Your task to perform on an android device: set an alarm Image 0: 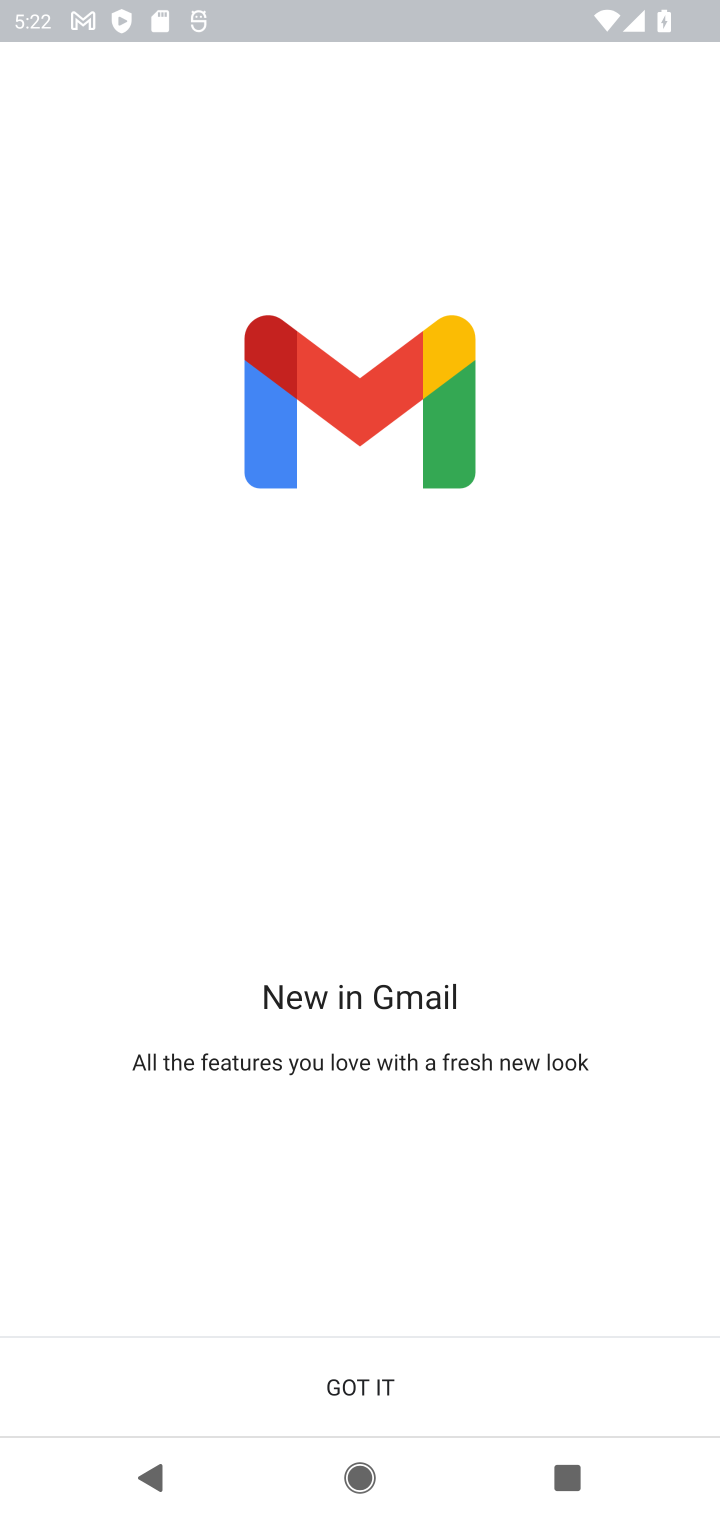
Step 0: press home button
Your task to perform on an android device: set an alarm Image 1: 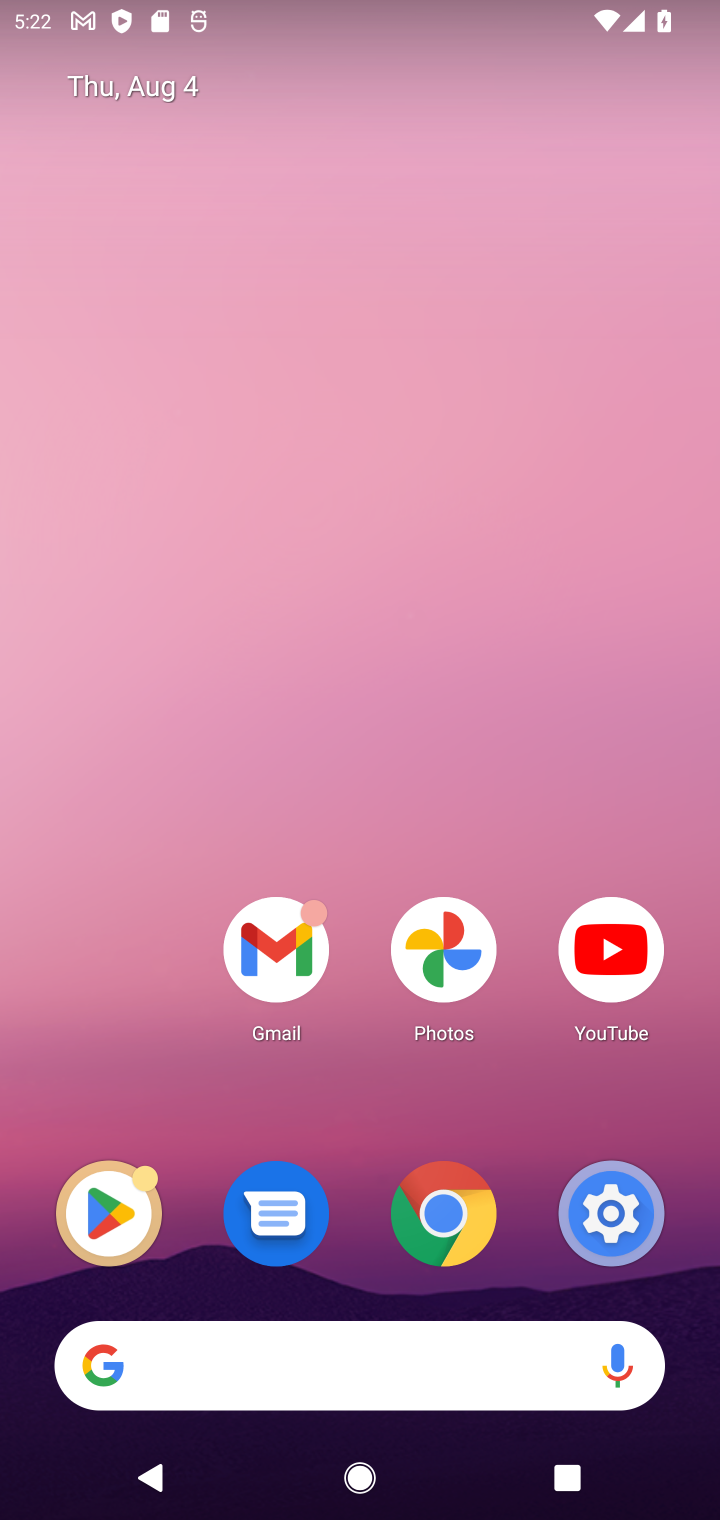
Step 1: drag from (341, 1107) to (343, 70)
Your task to perform on an android device: set an alarm Image 2: 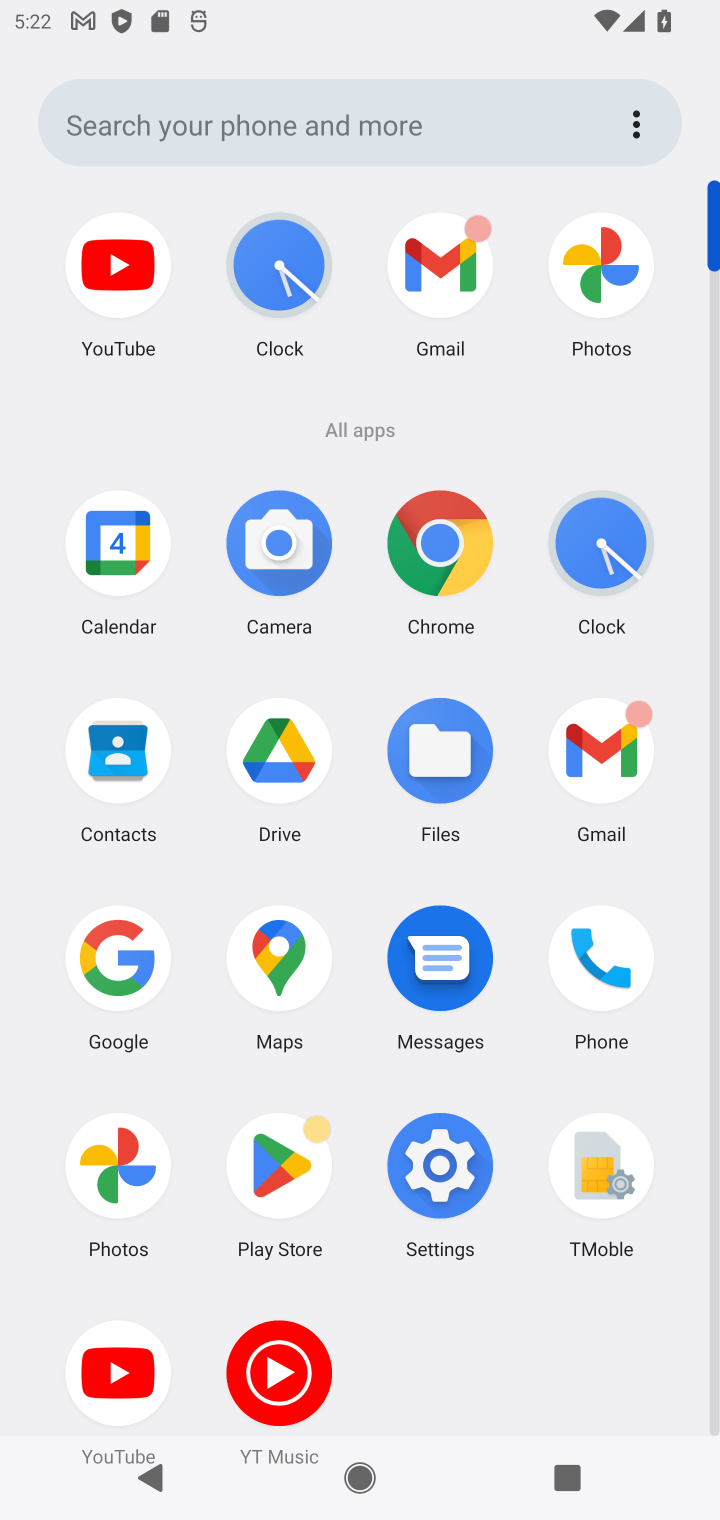
Step 2: click (258, 279)
Your task to perform on an android device: set an alarm Image 3: 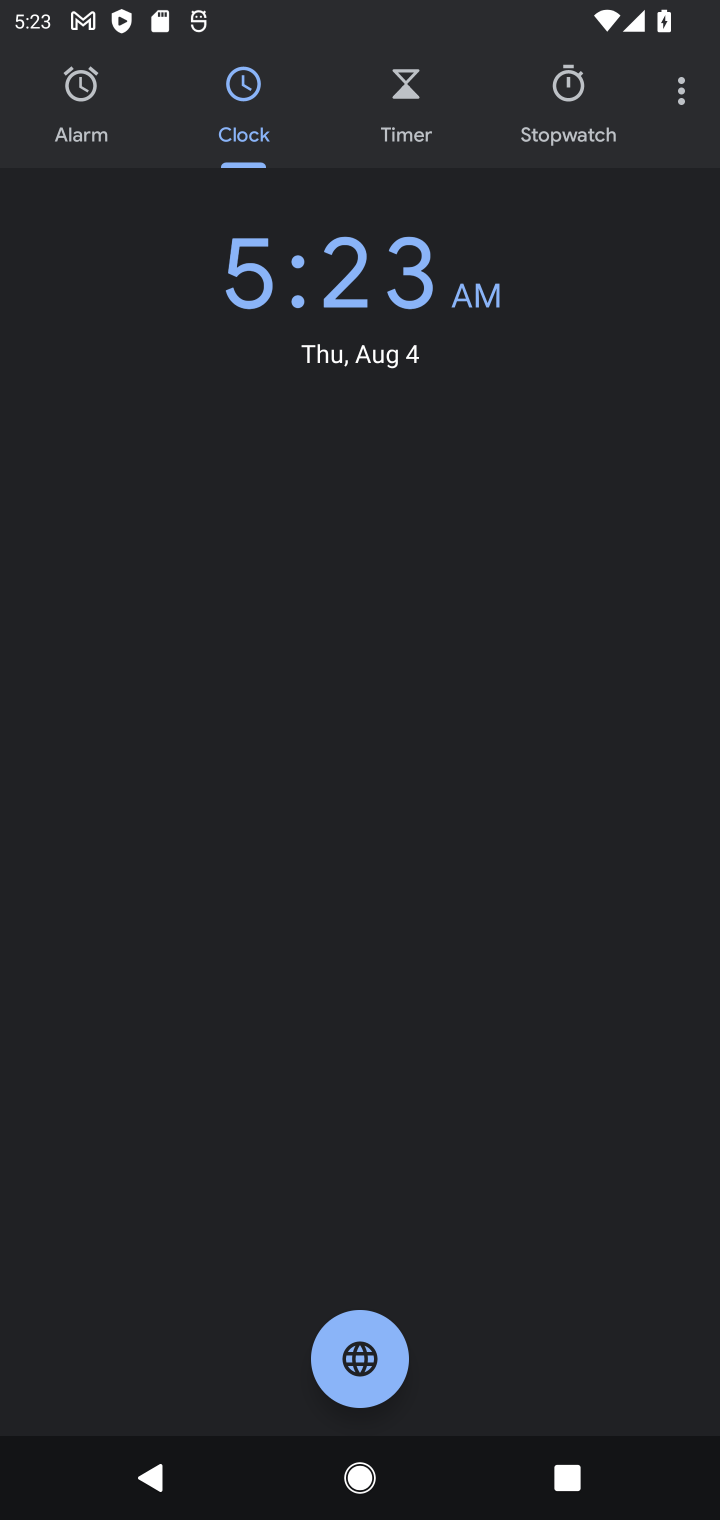
Step 3: click (81, 120)
Your task to perform on an android device: set an alarm Image 4: 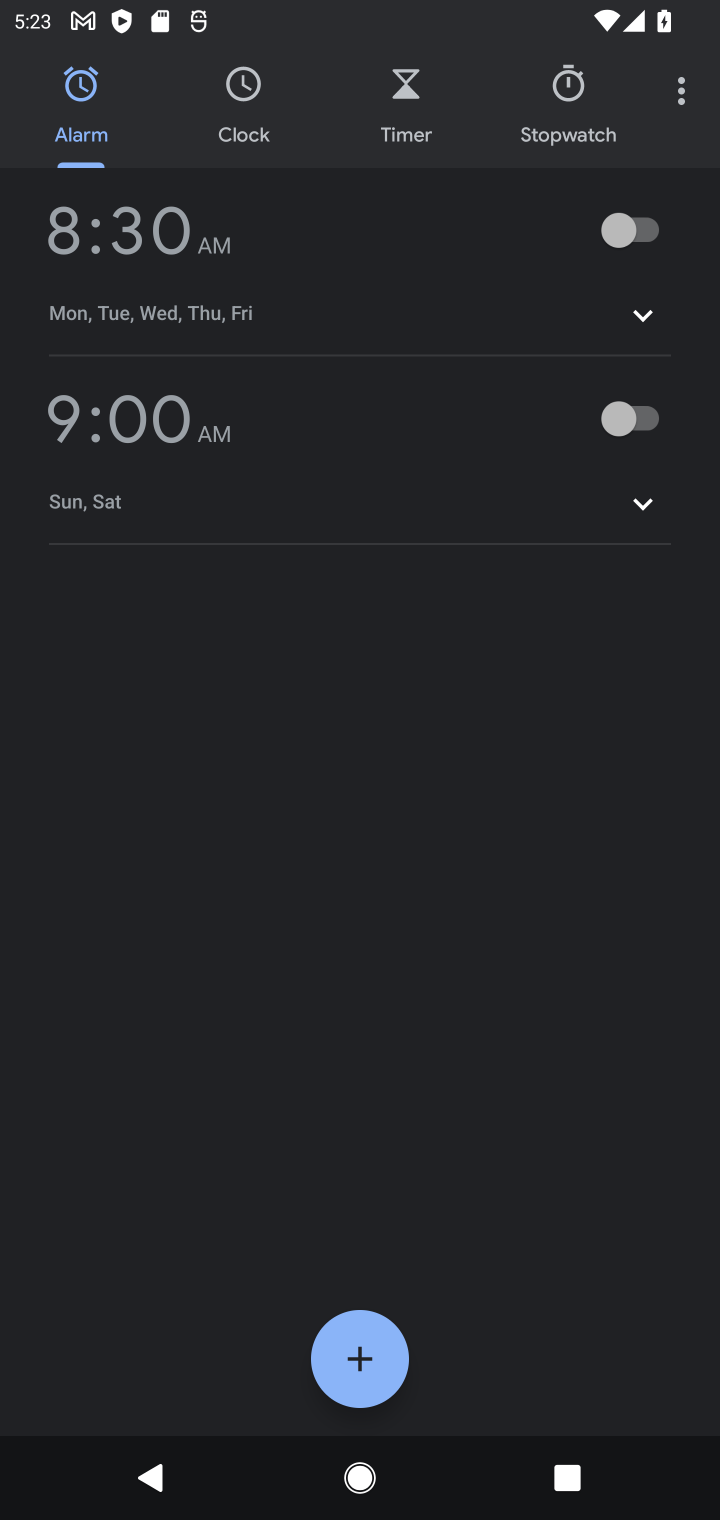
Step 4: click (350, 1352)
Your task to perform on an android device: set an alarm Image 5: 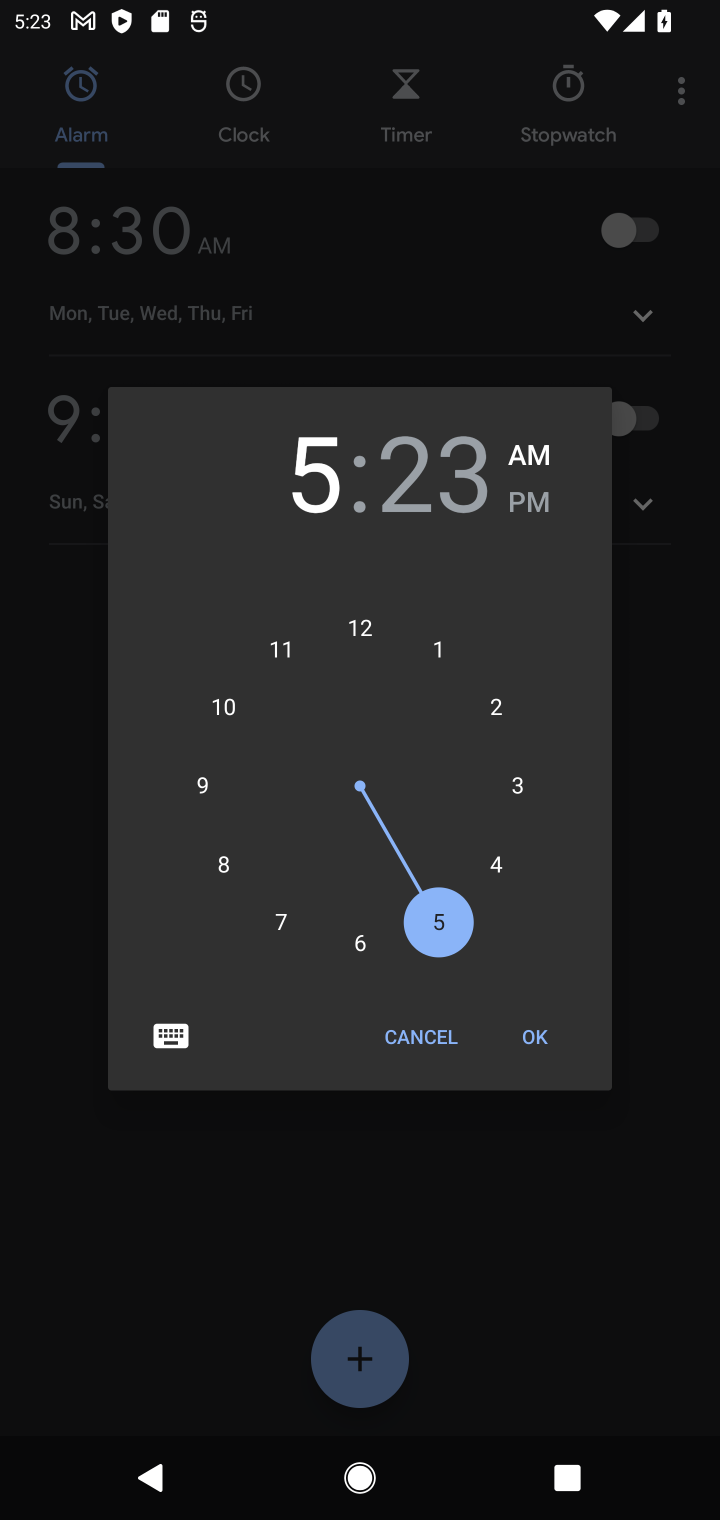
Step 5: click (366, 938)
Your task to perform on an android device: set an alarm Image 6: 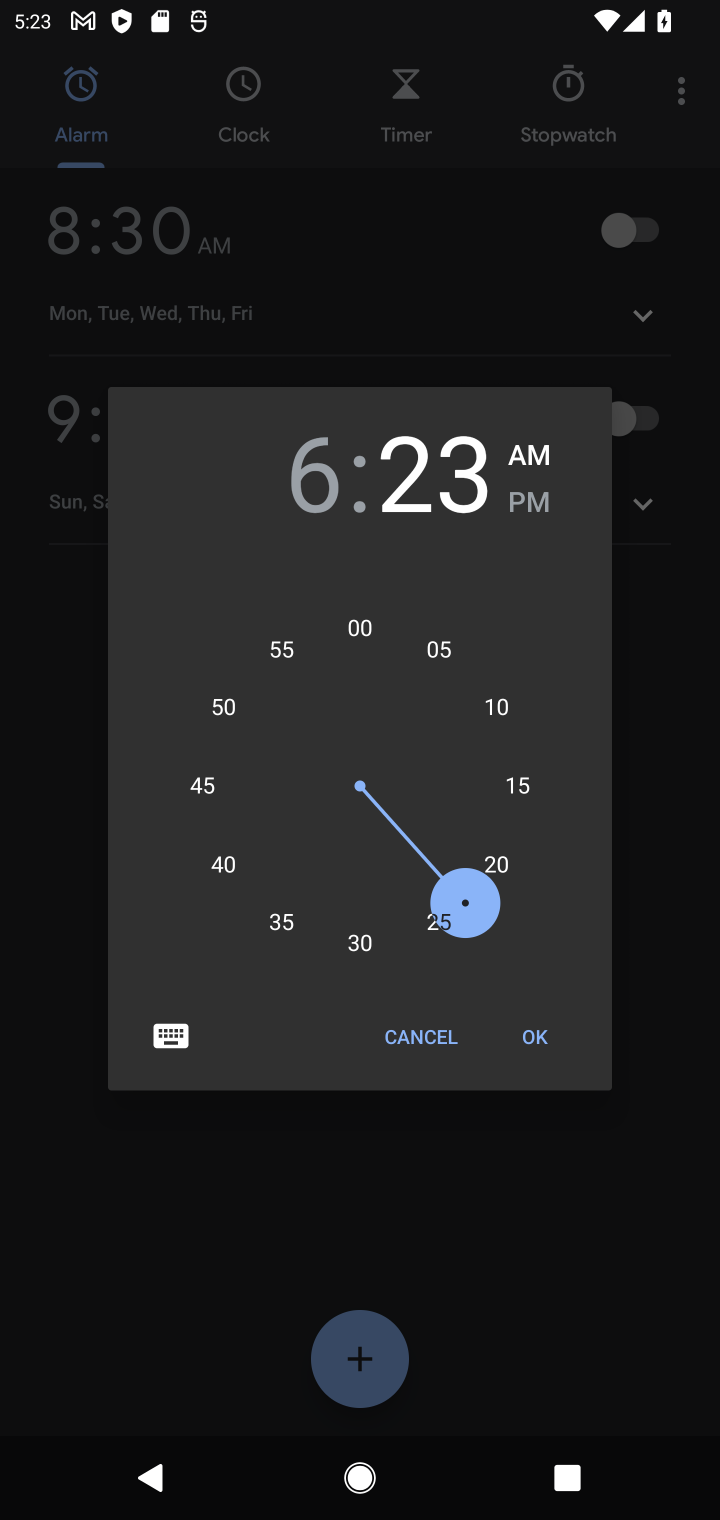
Step 6: click (361, 951)
Your task to perform on an android device: set an alarm Image 7: 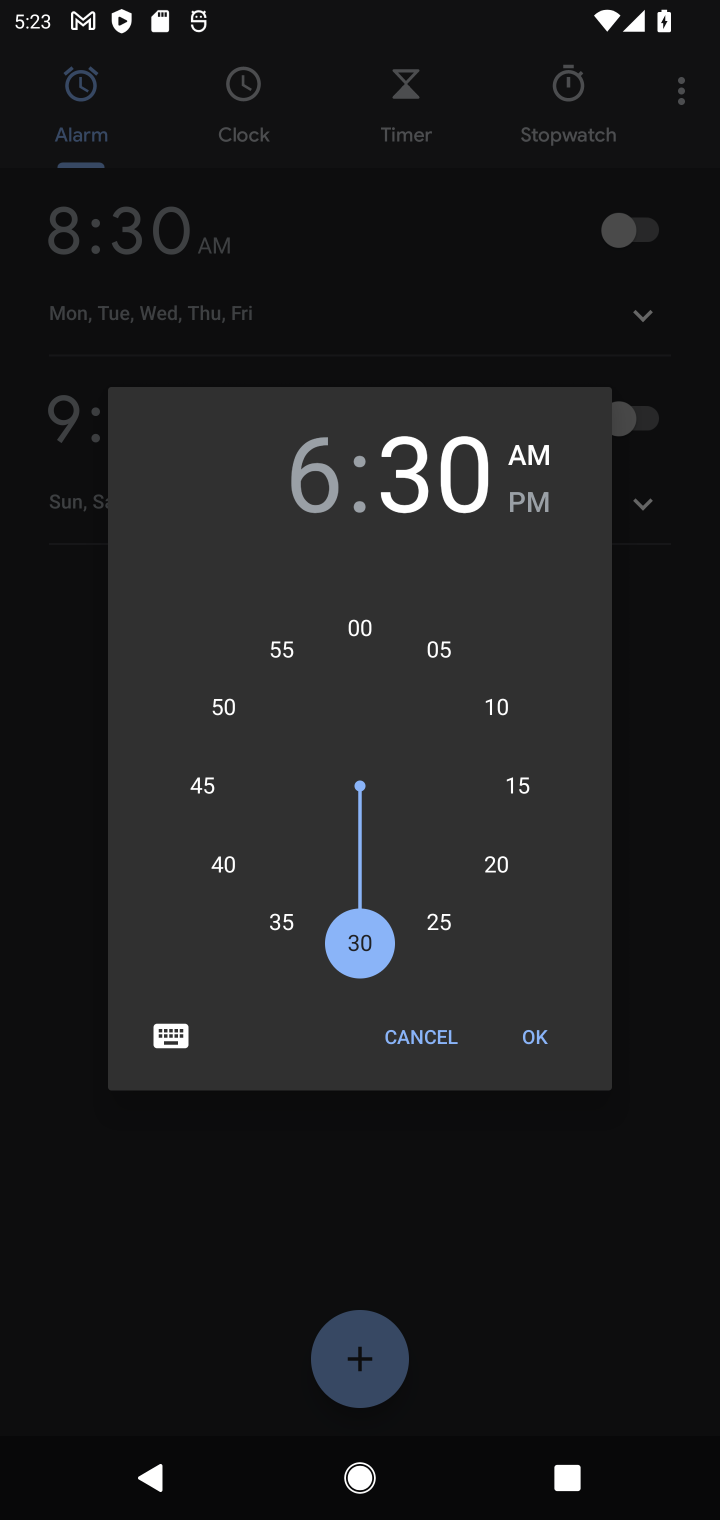
Step 7: click (545, 1050)
Your task to perform on an android device: set an alarm Image 8: 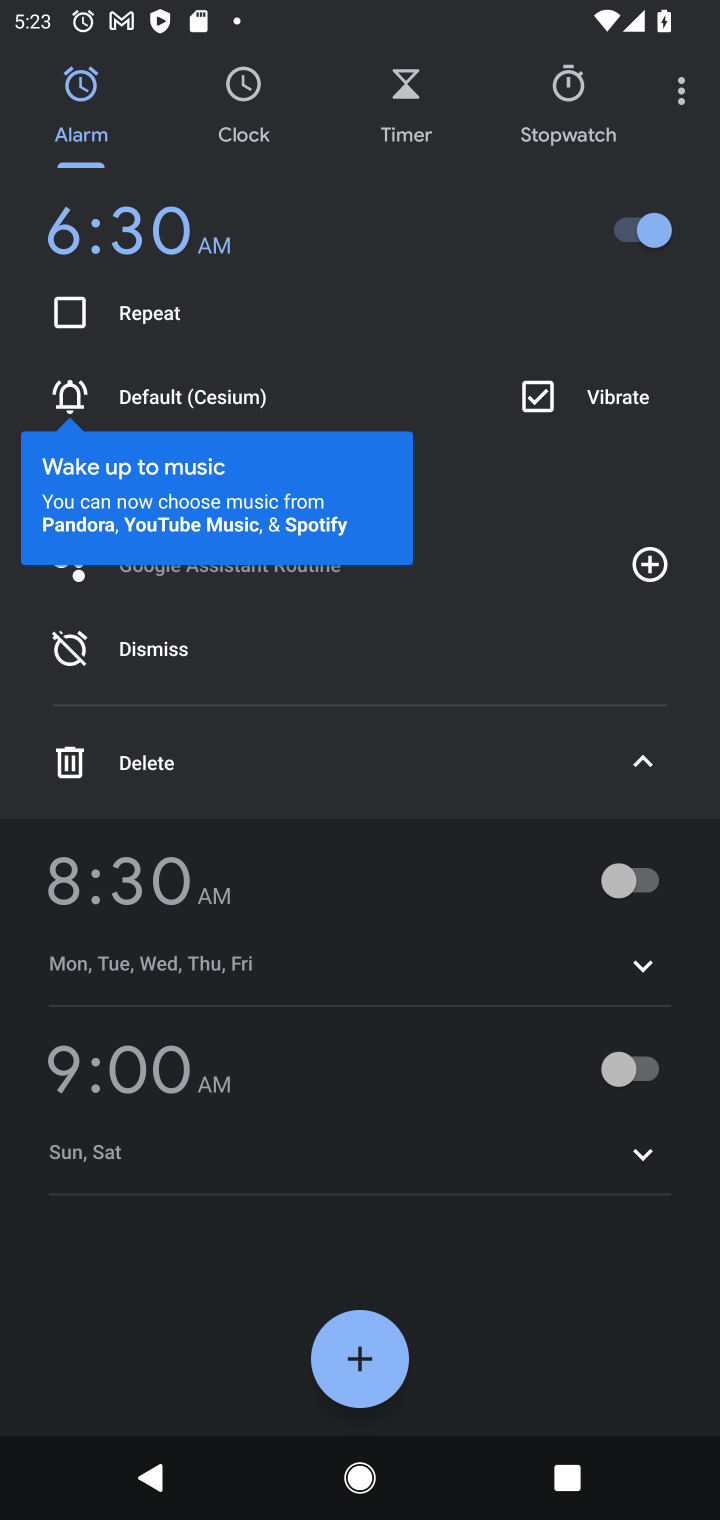
Step 8: task complete